Your task to perform on an android device: Open accessibility settings Image 0: 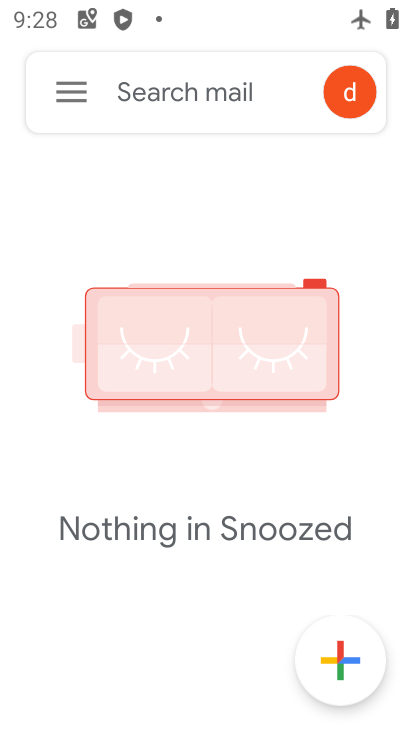
Step 0: press home button
Your task to perform on an android device: Open accessibility settings Image 1: 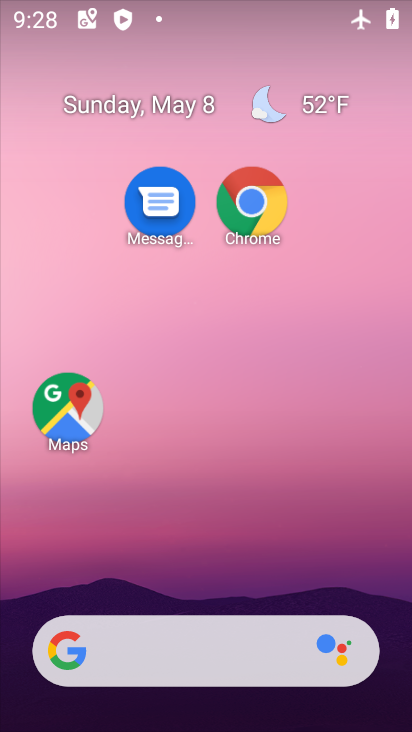
Step 1: drag from (197, 615) to (125, 83)
Your task to perform on an android device: Open accessibility settings Image 2: 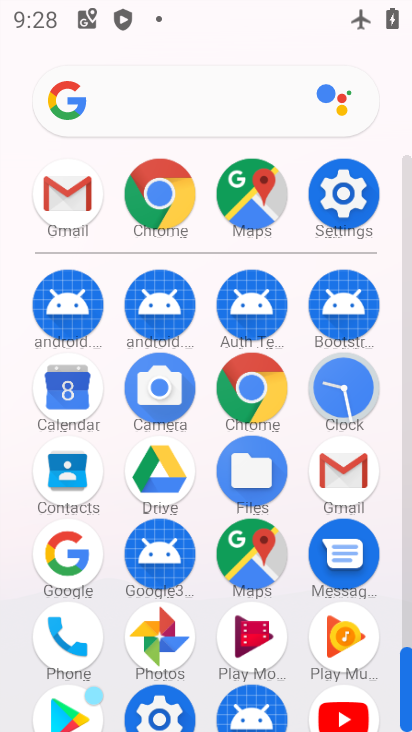
Step 2: click (363, 190)
Your task to perform on an android device: Open accessibility settings Image 3: 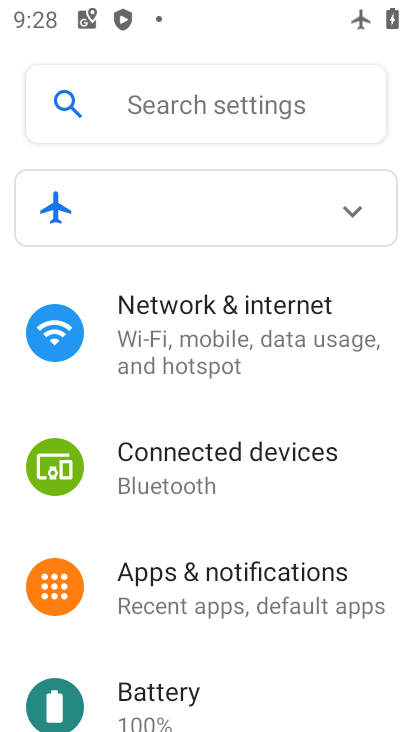
Step 3: drag from (280, 554) to (228, 54)
Your task to perform on an android device: Open accessibility settings Image 4: 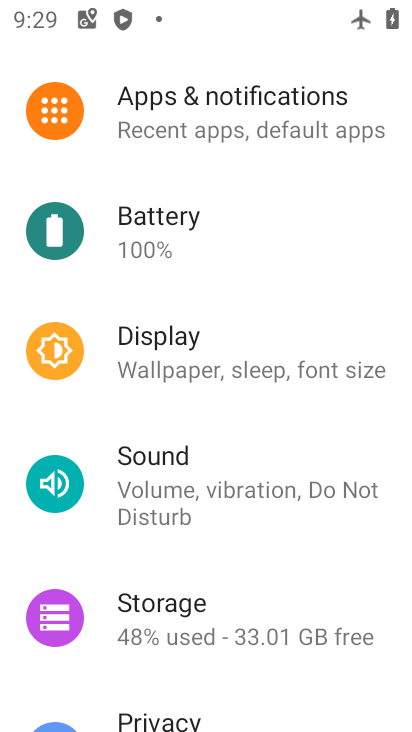
Step 4: drag from (218, 672) to (138, 20)
Your task to perform on an android device: Open accessibility settings Image 5: 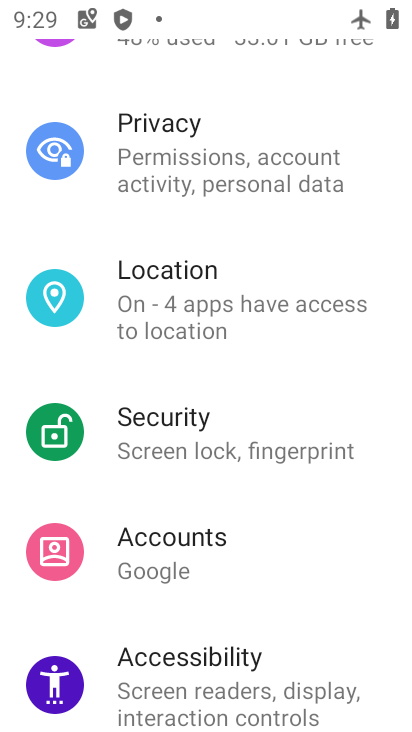
Step 5: click (188, 687)
Your task to perform on an android device: Open accessibility settings Image 6: 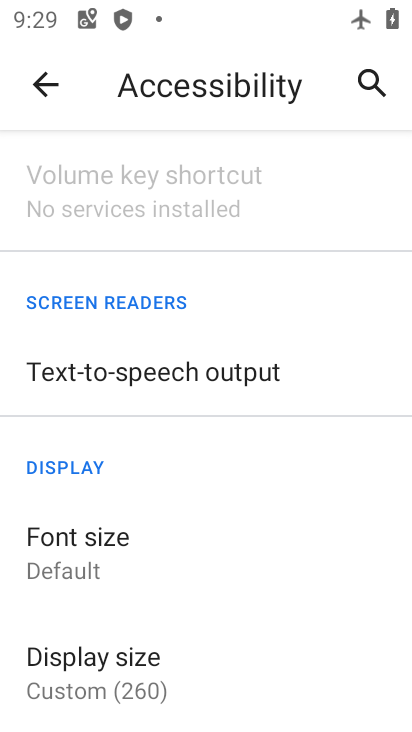
Step 6: task complete